Your task to perform on an android device: open chrome and create a bookmark for the current page Image 0: 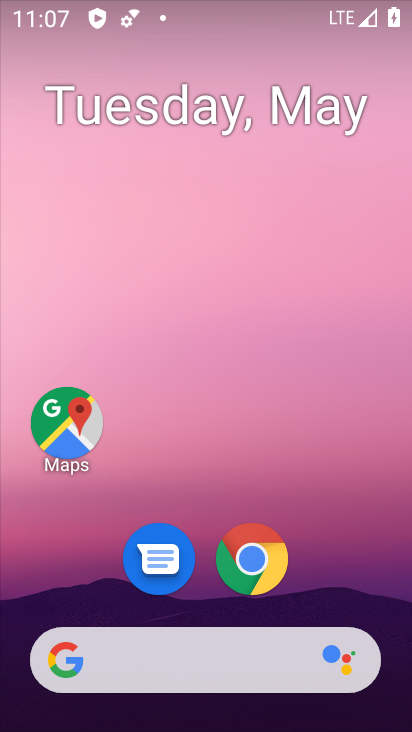
Step 0: drag from (376, 563) to (366, 132)
Your task to perform on an android device: open chrome and create a bookmark for the current page Image 1: 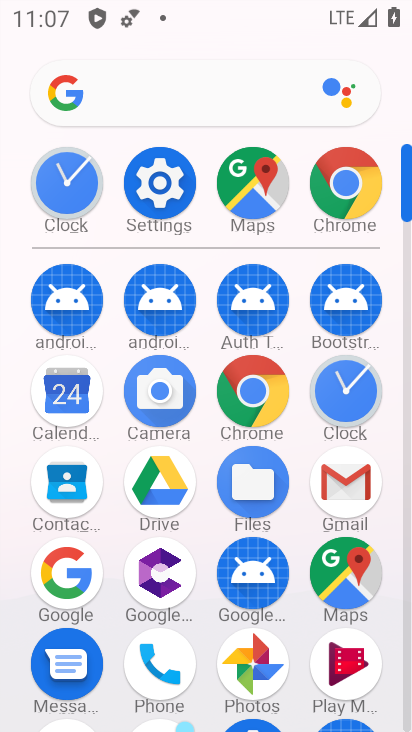
Step 1: click (270, 404)
Your task to perform on an android device: open chrome and create a bookmark for the current page Image 2: 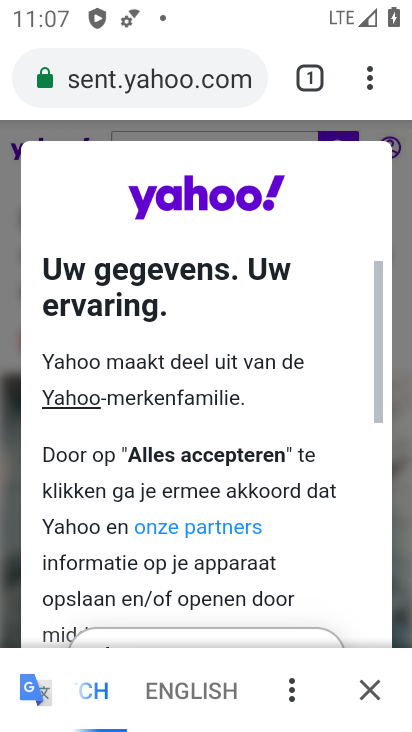
Step 2: click (376, 701)
Your task to perform on an android device: open chrome and create a bookmark for the current page Image 3: 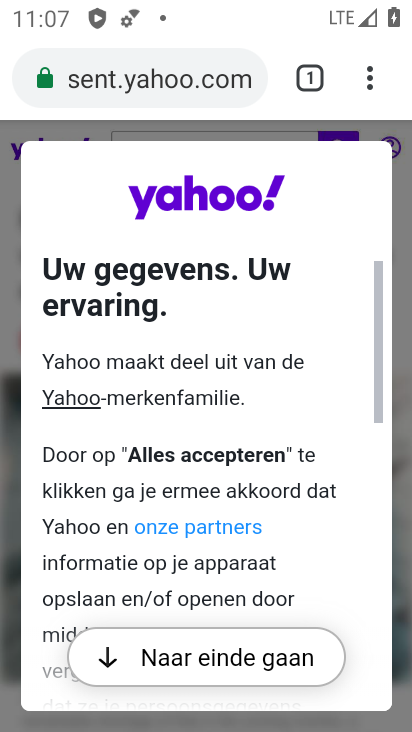
Step 3: task complete